Your task to perform on an android device: open a bookmark in the chrome app Image 0: 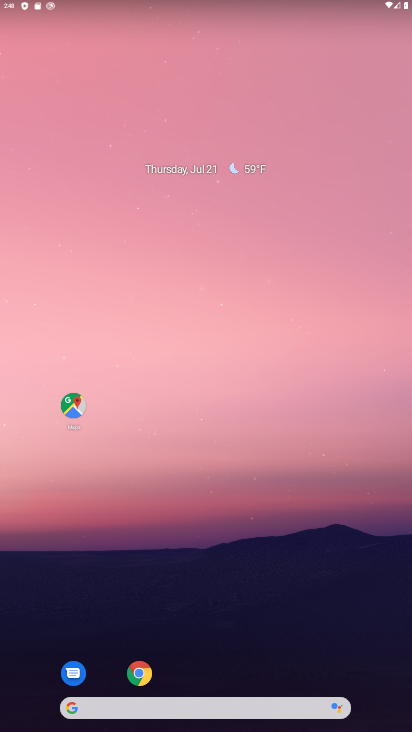
Step 0: click (141, 675)
Your task to perform on an android device: open a bookmark in the chrome app Image 1: 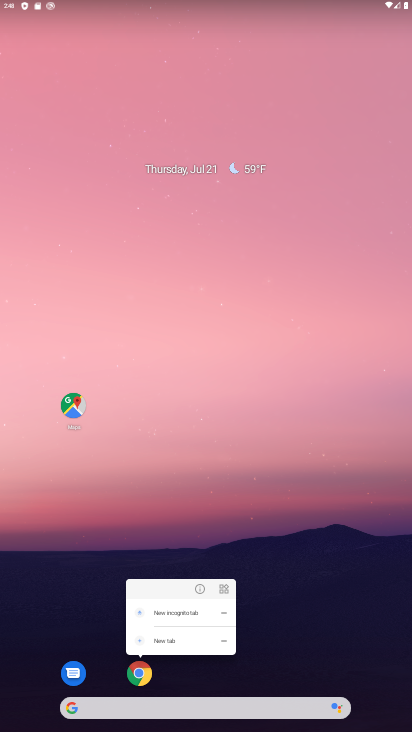
Step 1: click (136, 674)
Your task to perform on an android device: open a bookmark in the chrome app Image 2: 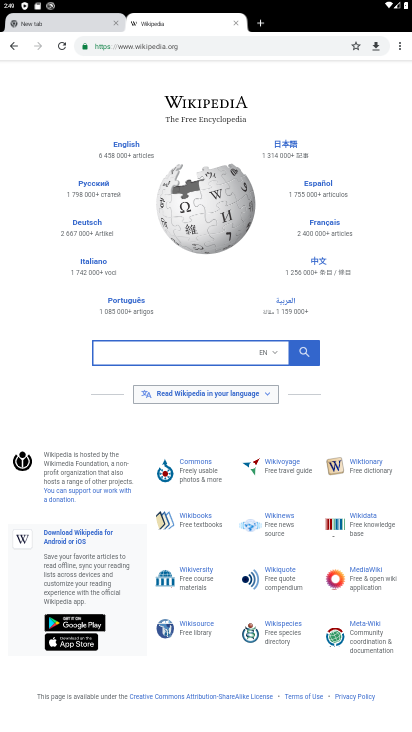
Step 2: click (398, 50)
Your task to perform on an android device: open a bookmark in the chrome app Image 3: 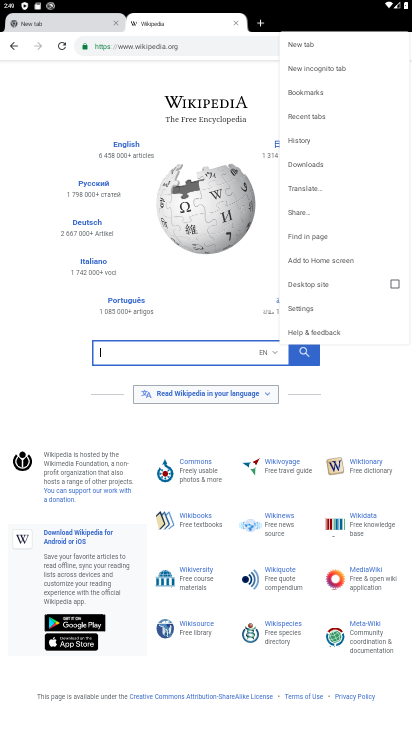
Step 3: click (296, 88)
Your task to perform on an android device: open a bookmark in the chrome app Image 4: 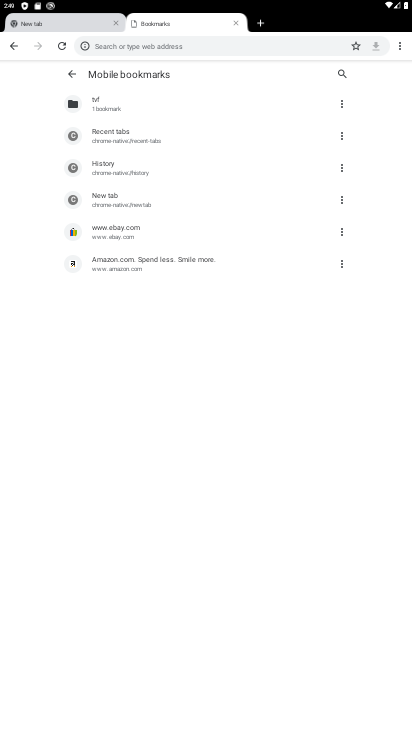
Step 4: task complete